Your task to perform on an android device: turn off picture-in-picture Image 0: 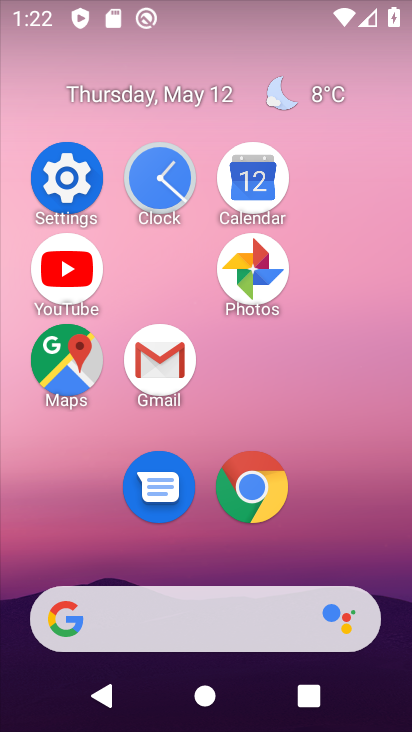
Step 0: click (268, 492)
Your task to perform on an android device: turn off picture-in-picture Image 1: 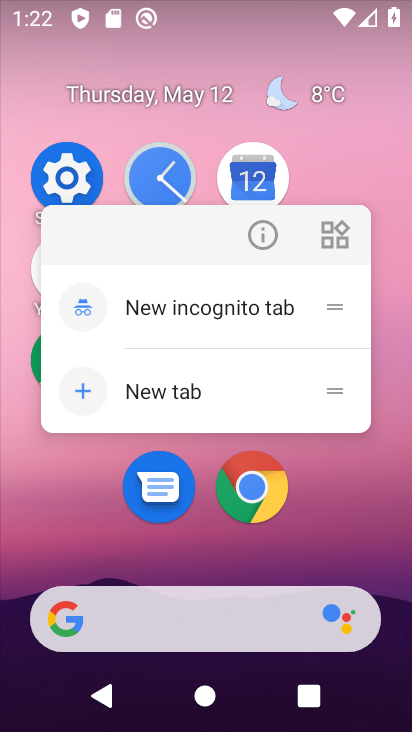
Step 1: click (255, 228)
Your task to perform on an android device: turn off picture-in-picture Image 2: 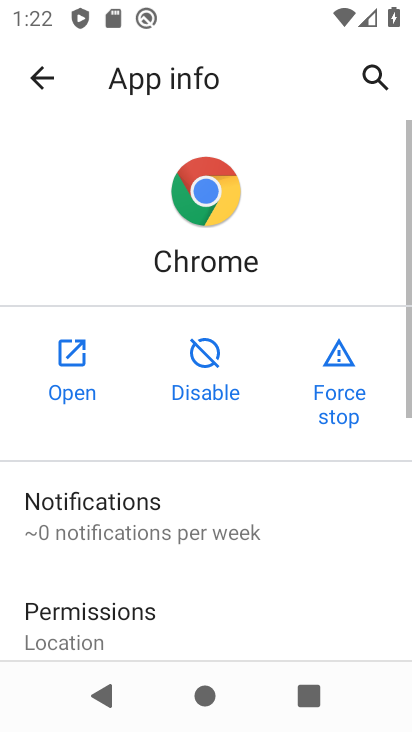
Step 2: drag from (233, 607) to (268, 224)
Your task to perform on an android device: turn off picture-in-picture Image 3: 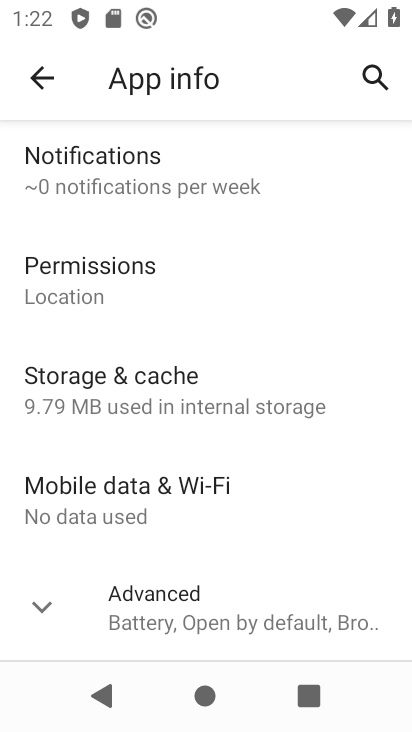
Step 3: drag from (279, 619) to (308, 302)
Your task to perform on an android device: turn off picture-in-picture Image 4: 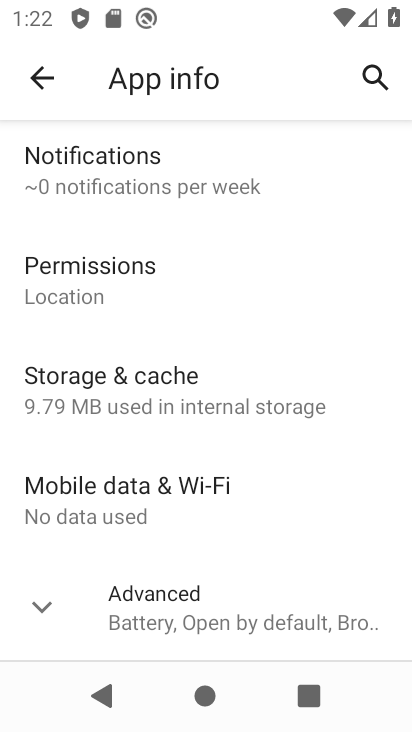
Step 4: click (211, 585)
Your task to perform on an android device: turn off picture-in-picture Image 5: 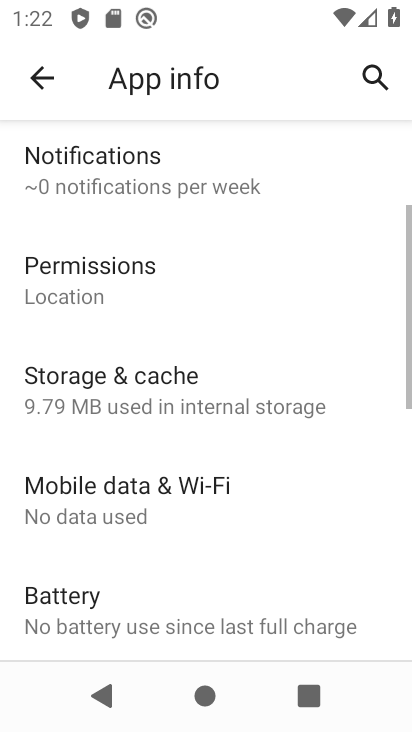
Step 5: drag from (234, 536) to (309, 229)
Your task to perform on an android device: turn off picture-in-picture Image 6: 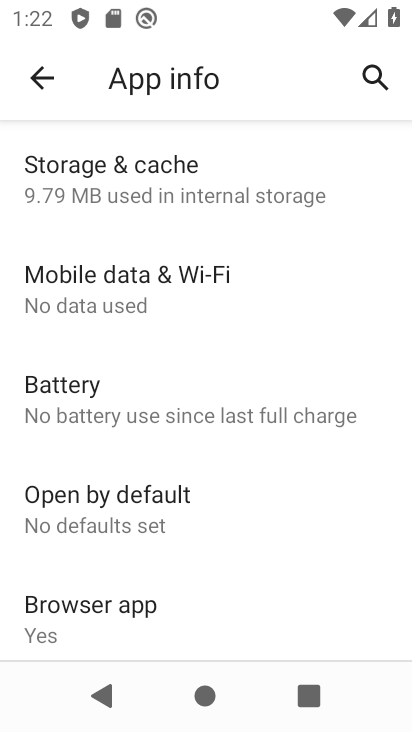
Step 6: drag from (241, 572) to (258, 232)
Your task to perform on an android device: turn off picture-in-picture Image 7: 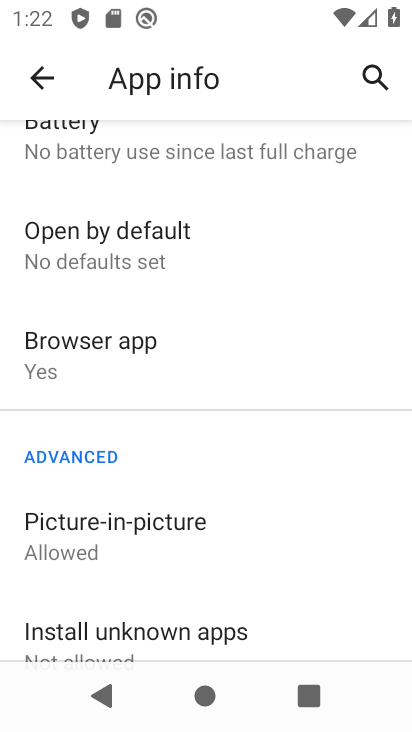
Step 7: click (221, 512)
Your task to perform on an android device: turn off picture-in-picture Image 8: 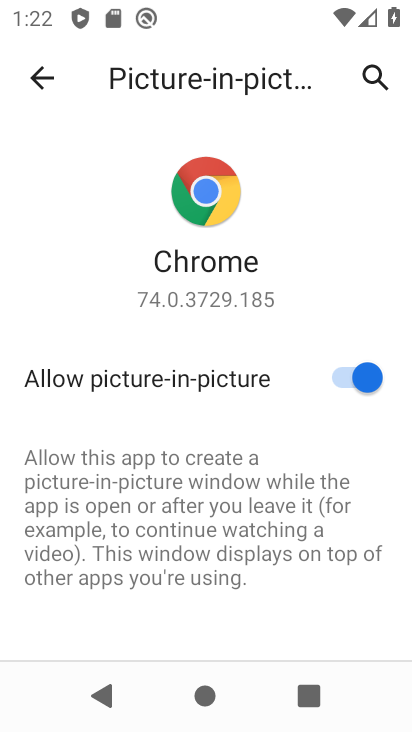
Step 8: click (338, 378)
Your task to perform on an android device: turn off picture-in-picture Image 9: 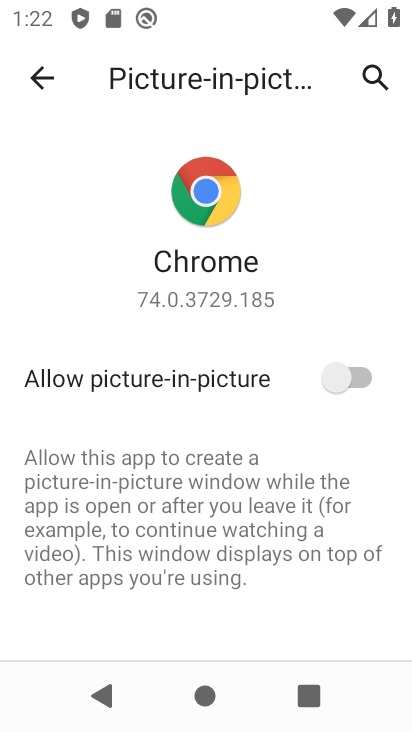
Step 9: task complete